Your task to perform on an android device: Search for pizza restaurants on Maps Image 0: 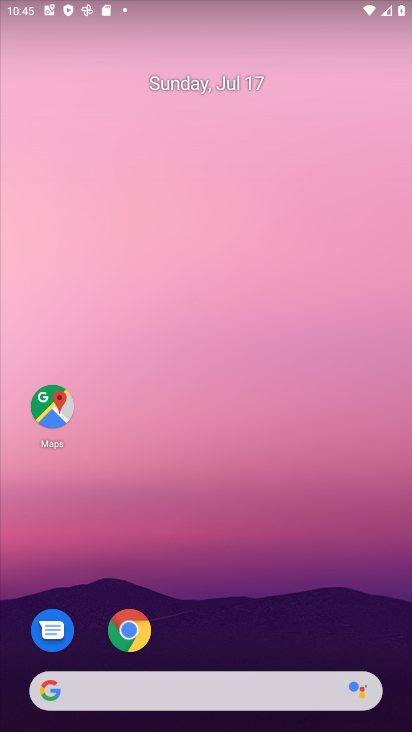
Step 0: click (46, 416)
Your task to perform on an android device: Search for pizza restaurants on Maps Image 1: 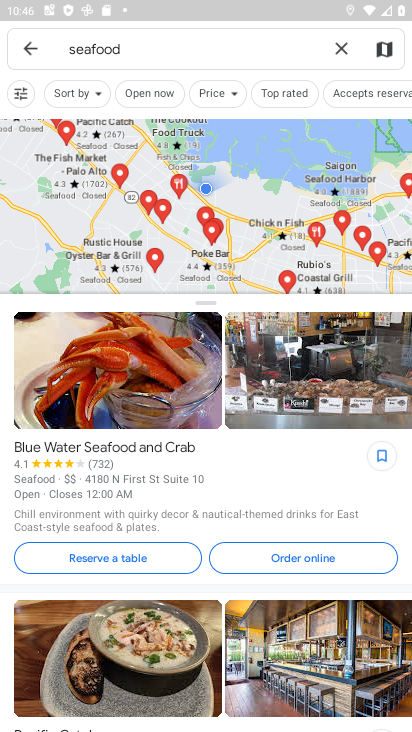
Step 1: click (333, 49)
Your task to perform on an android device: Search for pizza restaurants on Maps Image 2: 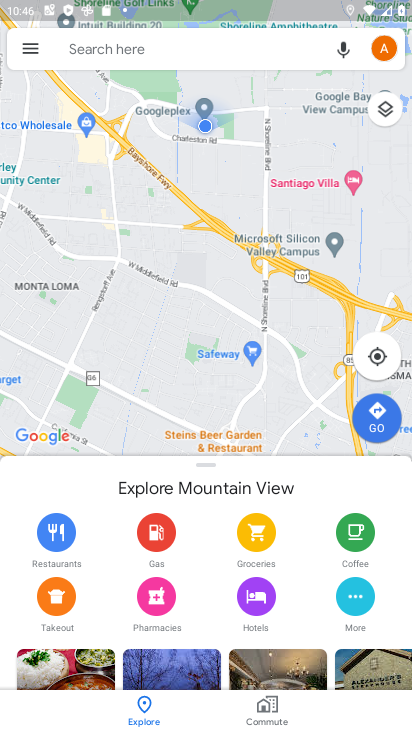
Step 2: click (247, 44)
Your task to perform on an android device: Search for pizza restaurants on Maps Image 3: 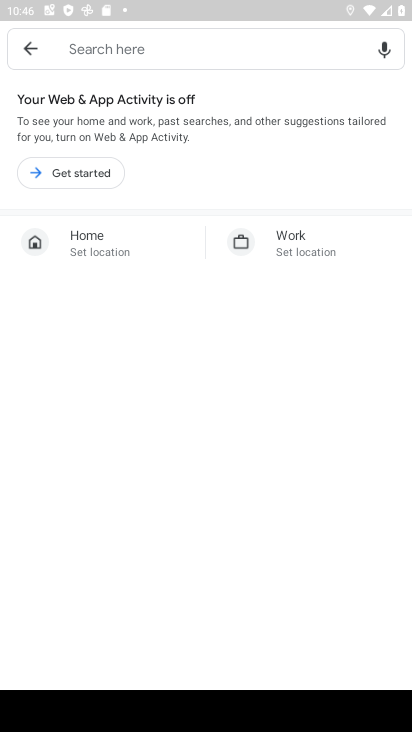
Step 3: type "pizza"
Your task to perform on an android device: Search for pizza restaurants on Maps Image 4: 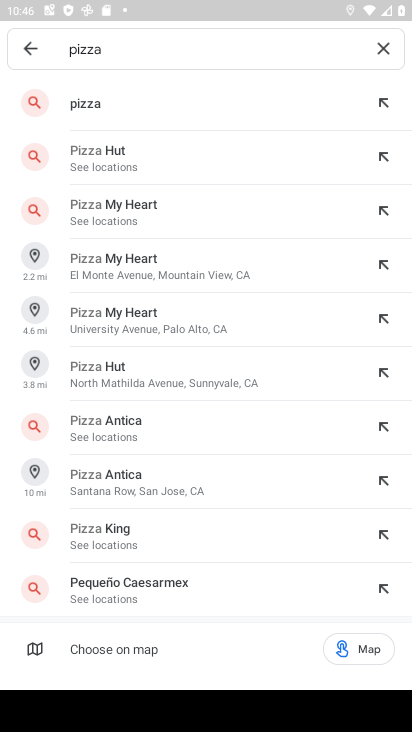
Step 4: click (185, 110)
Your task to perform on an android device: Search for pizza restaurants on Maps Image 5: 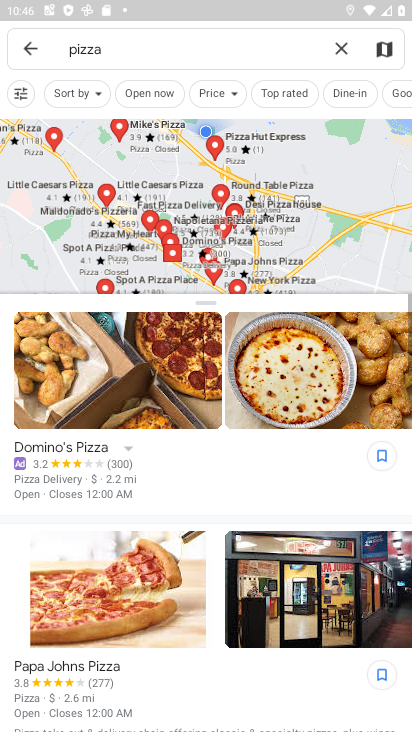
Step 5: task complete